Your task to perform on an android device: Show the shopping cart on target.com. Add "sony triple a" to the cart on target.com, then select checkout. Image 0: 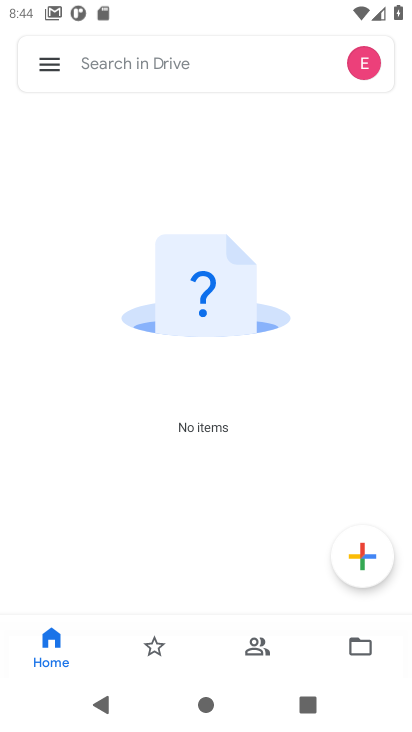
Step 0: press home button
Your task to perform on an android device: Show the shopping cart on target.com. Add "sony triple a" to the cart on target.com, then select checkout. Image 1: 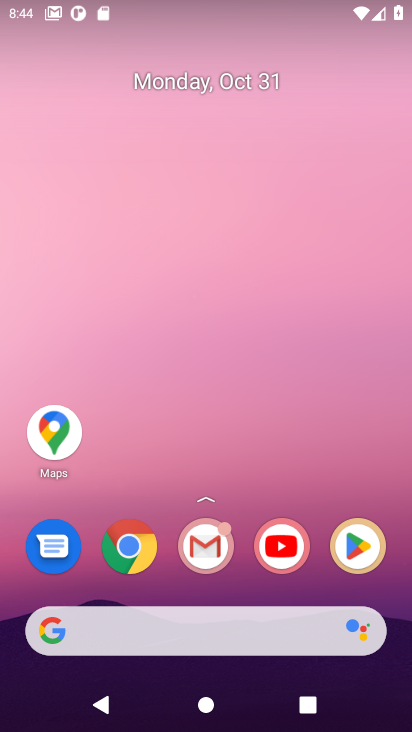
Step 1: drag from (148, 401) to (75, 64)
Your task to perform on an android device: Show the shopping cart on target.com. Add "sony triple a" to the cart on target.com, then select checkout. Image 2: 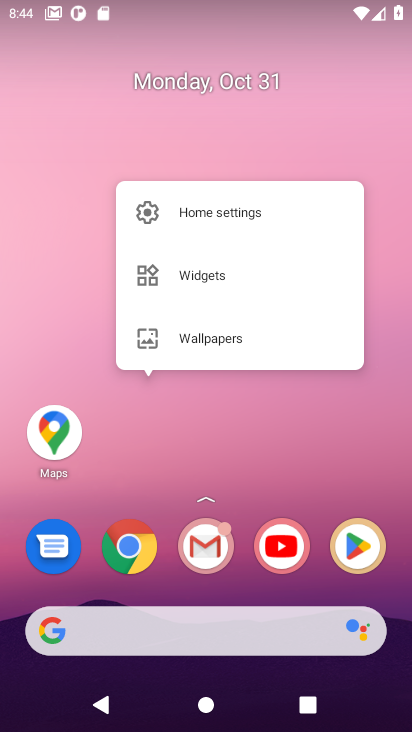
Step 2: click (250, 416)
Your task to perform on an android device: Show the shopping cart on target.com. Add "sony triple a" to the cart on target.com, then select checkout. Image 3: 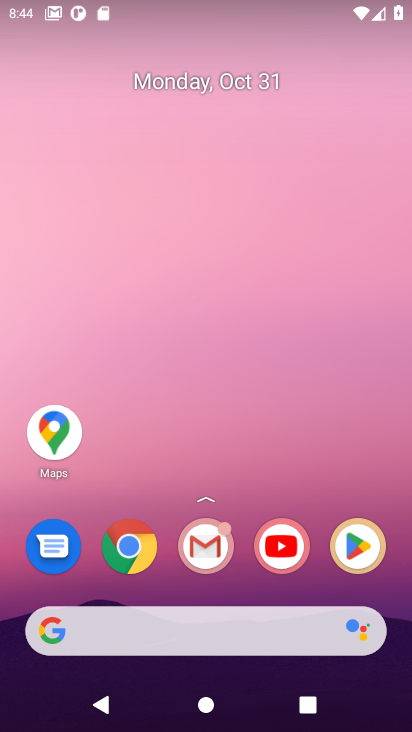
Step 3: drag from (242, 552) to (228, 167)
Your task to perform on an android device: Show the shopping cart on target.com. Add "sony triple a" to the cart on target.com, then select checkout. Image 4: 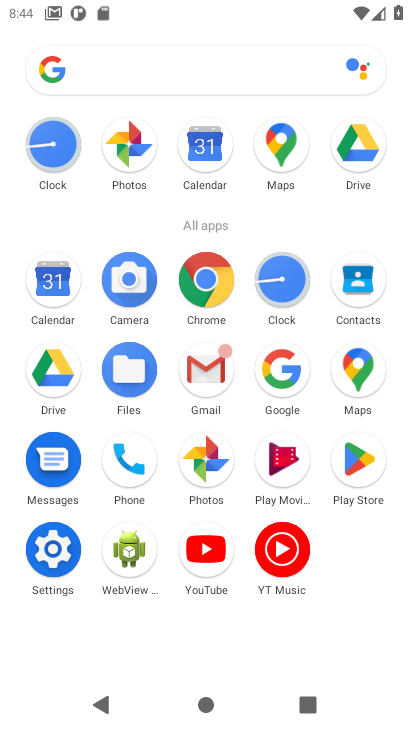
Step 4: click (202, 303)
Your task to perform on an android device: Show the shopping cart on target.com. Add "sony triple a" to the cart on target.com, then select checkout. Image 5: 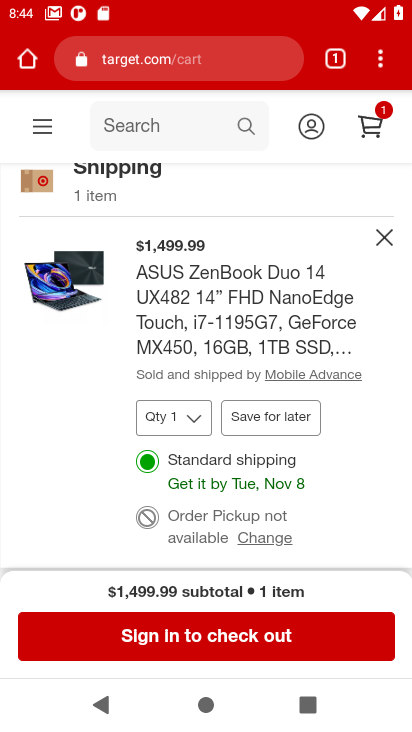
Step 5: click (391, 235)
Your task to perform on an android device: Show the shopping cart on target.com. Add "sony triple a" to the cart on target.com, then select checkout. Image 6: 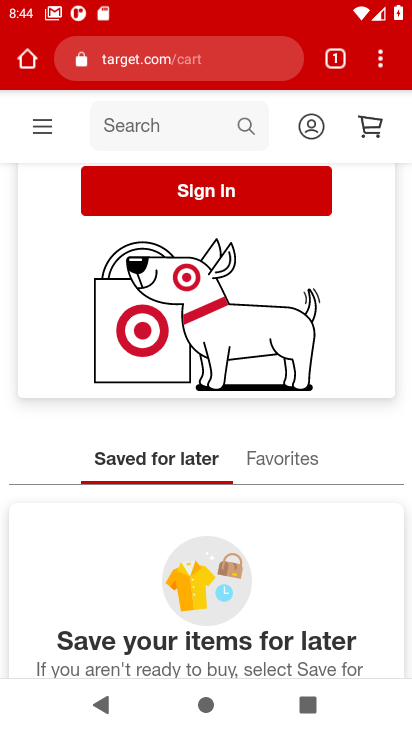
Step 6: click (369, 129)
Your task to perform on an android device: Show the shopping cart on target.com. Add "sony triple a" to the cart on target.com, then select checkout. Image 7: 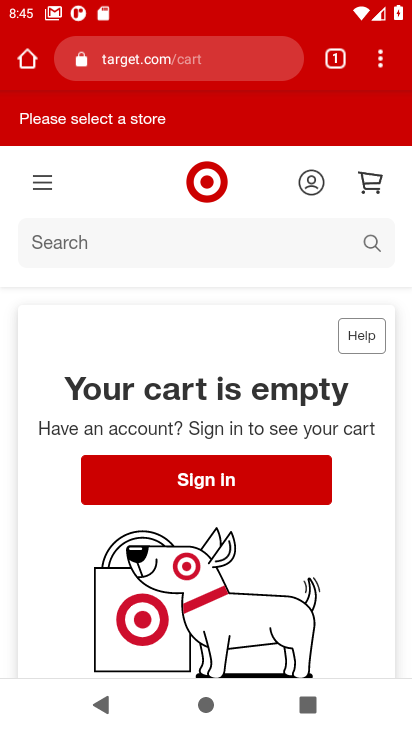
Step 7: type ""sony triple  a"
Your task to perform on an android device: Show the shopping cart on target.com. Add "sony triple a" to the cart on target.com, then select checkout. Image 8: 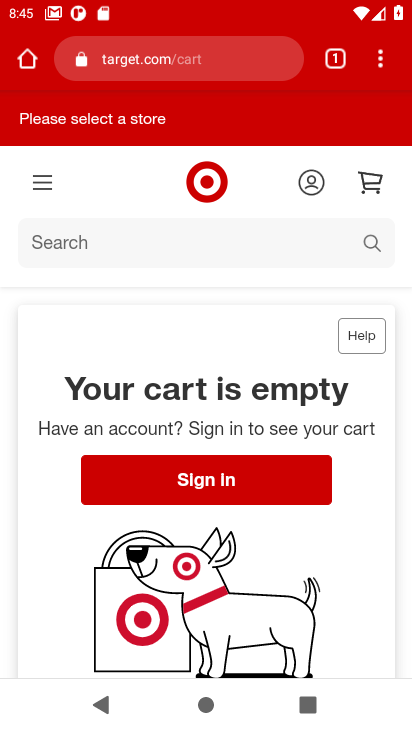
Step 8: press enter
Your task to perform on an android device: Show the shopping cart on target.com. Add "sony triple a" to the cart on target.com, then select checkout. Image 9: 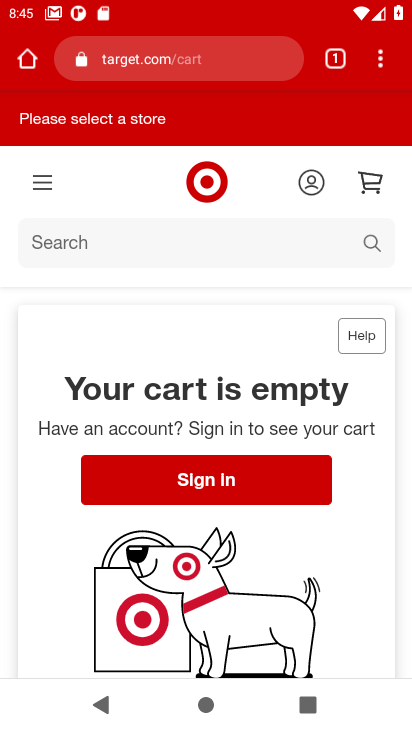
Step 9: click (97, 248)
Your task to perform on an android device: Show the shopping cart on target.com. Add "sony triple a" to the cart on target.com, then select checkout. Image 10: 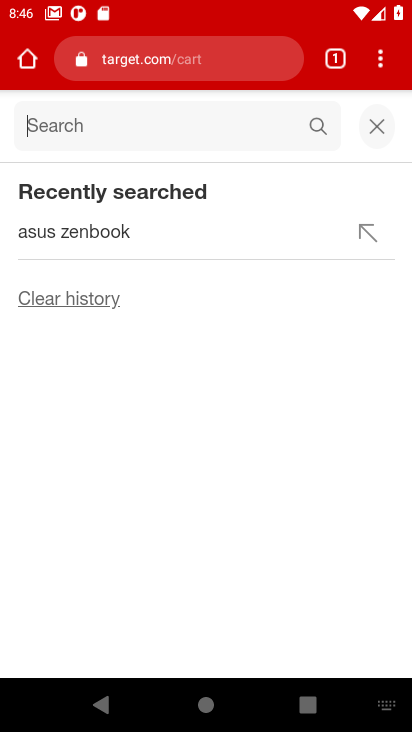
Step 10: type "sony triple a"
Your task to perform on an android device: Show the shopping cart on target.com. Add "sony triple a" to the cart on target.com, then select checkout. Image 11: 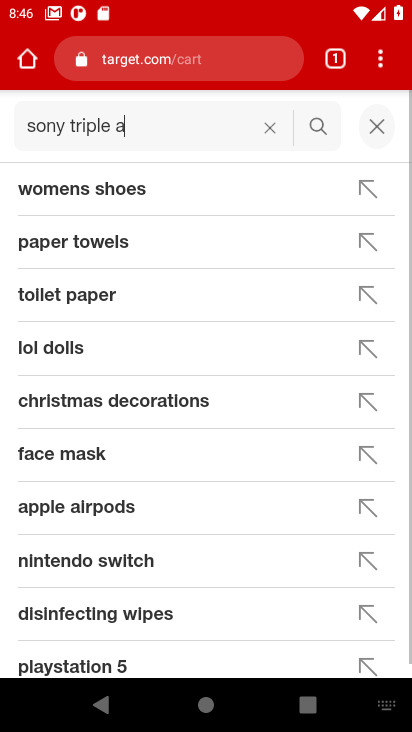
Step 11: press enter
Your task to perform on an android device: Show the shopping cart on target.com. Add "sony triple a" to the cart on target.com, then select checkout. Image 12: 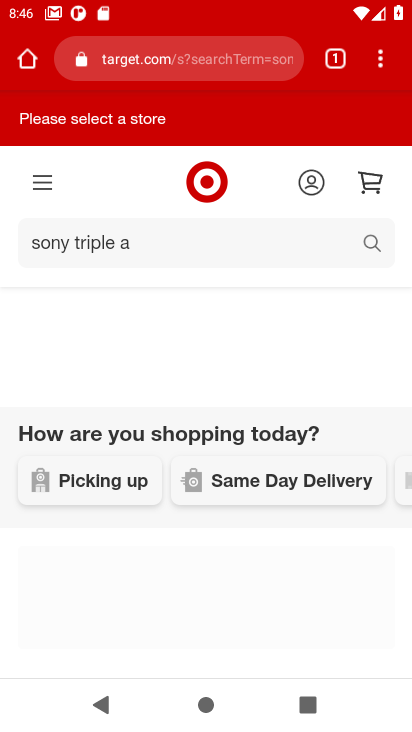
Step 12: drag from (183, 537) to (244, 343)
Your task to perform on an android device: Show the shopping cart on target.com. Add "sony triple a" to the cart on target.com, then select checkout. Image 13: 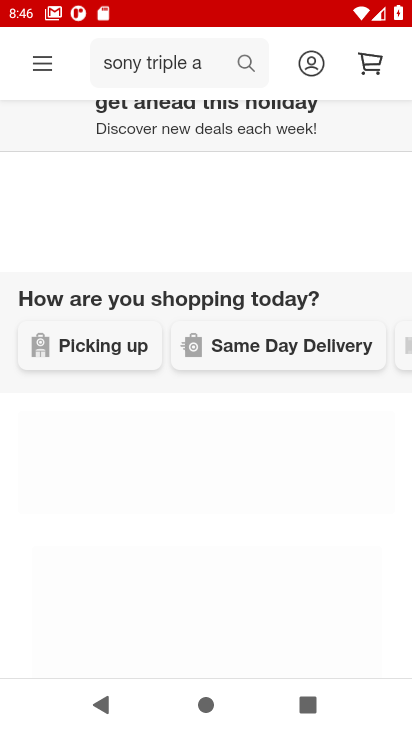
Step 13: drag from (326, 501) to (373, 266)
Your task to perform on an android device: Show the shopping cart on target.com. Add "sony triple a" to the cart on target.com, then select checkout. Image 14: 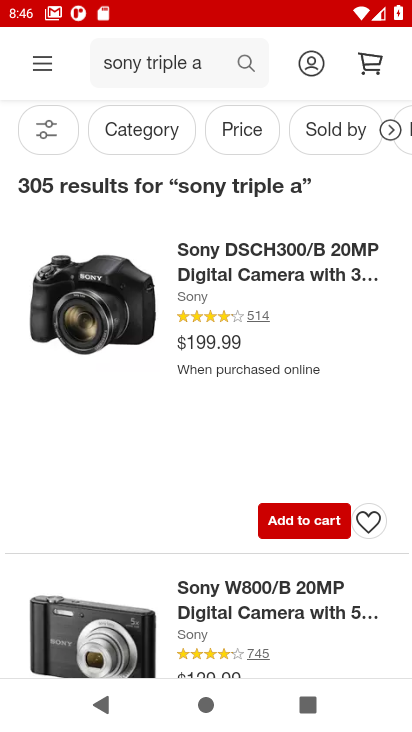
Step 14: click (323, 523)
Your task to perform on an android device: Show the shopping cart on target.com. Add "sony triple a" to the cart on target.com, then select checkout. Image 15: 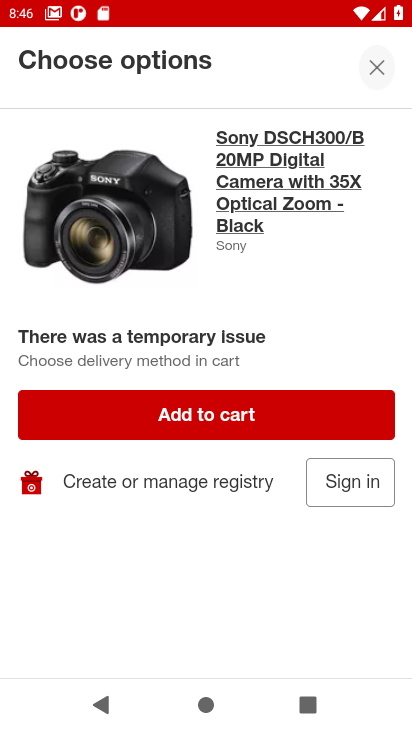
Step 15: click (246, 405)
Your task to perform on an android device: Show the shopping cart on target.com. Add "sony triple a" to the cart on target.com, then select checkout. Image 16: 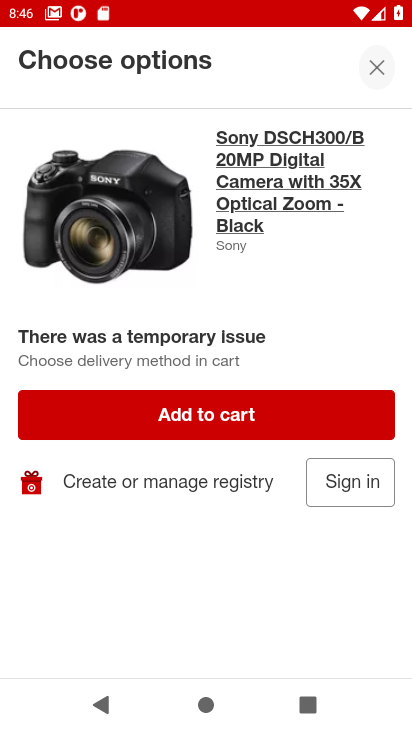
Step 16: click (227, 428)
Your task to perform on an android device: Show the shopping cart on target.com. Add "sony triple a" to the cart on target.com, then select checkout. Image 17: 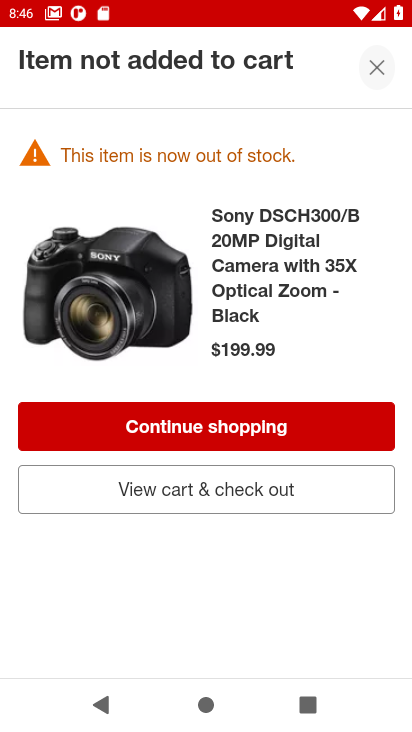
Step 17: click (182, 491)
Your task to perform on an android device: Show the shopping cart on target.com. Add "sony triple a" to the cart on target.com, then select checkout. Image 18: 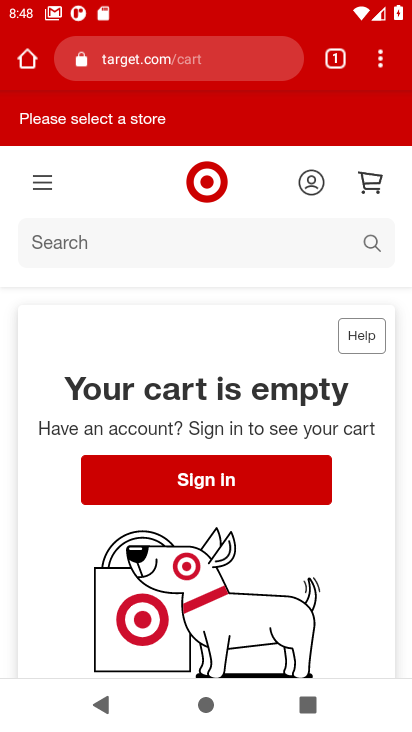
Step 18: task complete